Your task to perform on an android device: Is it going to rain tomorrow? Image 0: 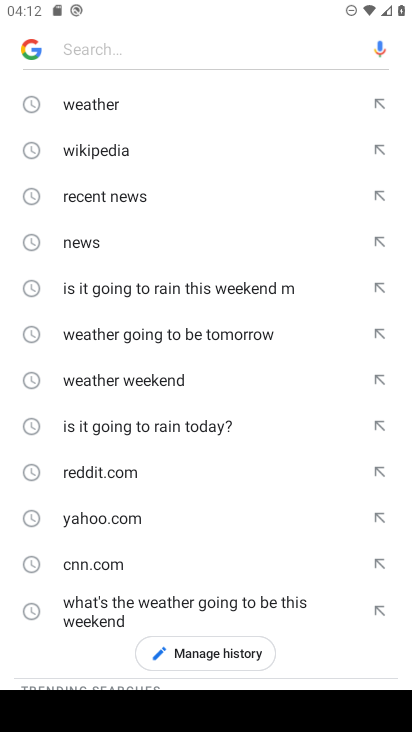
Step 0: click (108, 106)
Your task to perform on an android device: Is it going to rain tomorrow? Image 1: 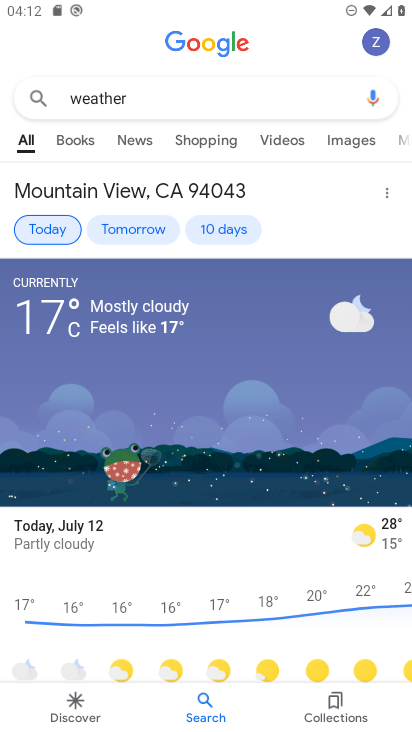
Step 1: click (134, 231)
Your task to perform on an android device: Is it going to rain tomorrow? Image 2: 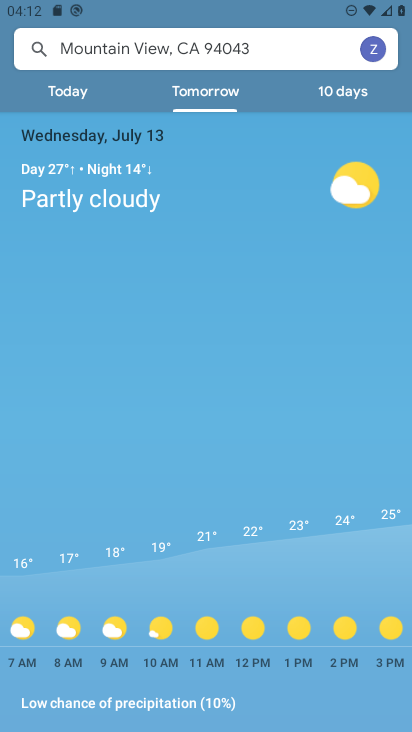
Step 2: task complete